Your task to perform on an android device: empty trash in the gmail app Image 0: 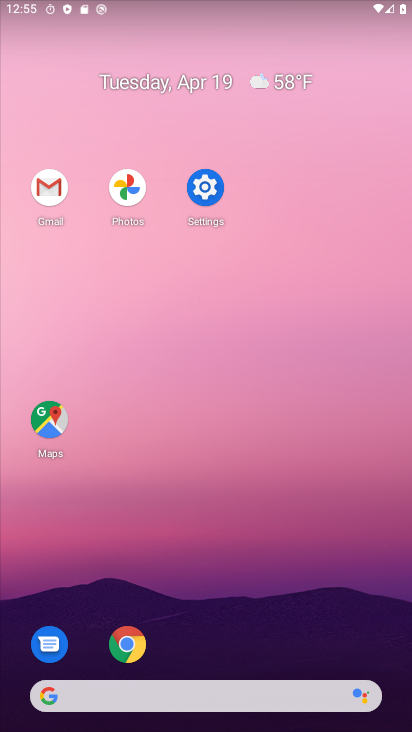
Step 0: click (52, 193)
Your task to perform on an android device: empty trash in the gmail app Image 1: 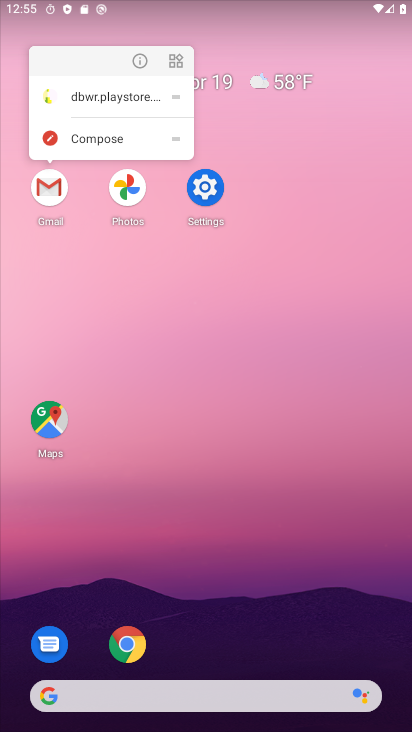
Step 1: click (52, 193)
Your task to perform on an android device: empty trash in the gmail app Image 2: 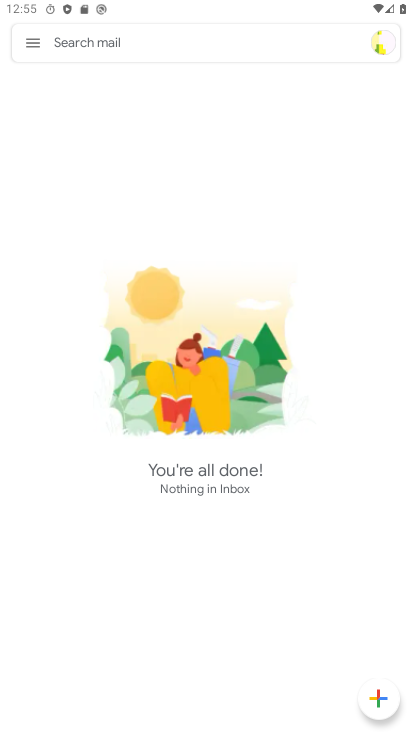
Step 2: click (46, 36)
Your task to perform on an android device: empty trash in the gmail app Image 3: 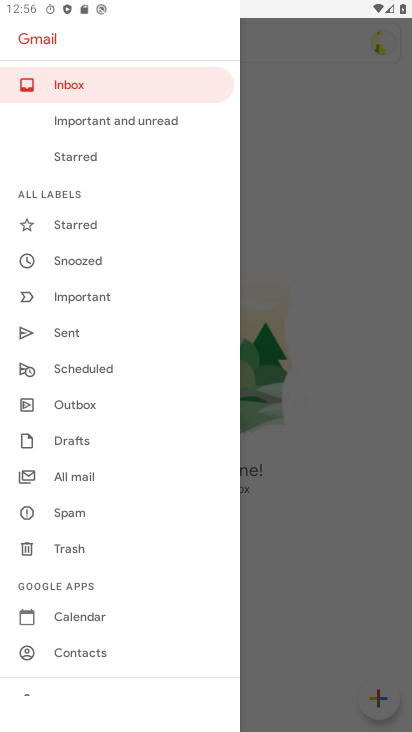
Step 3: click (100, 554)
Your task to perform on an android device: empty trash in the gmail app Image 4: 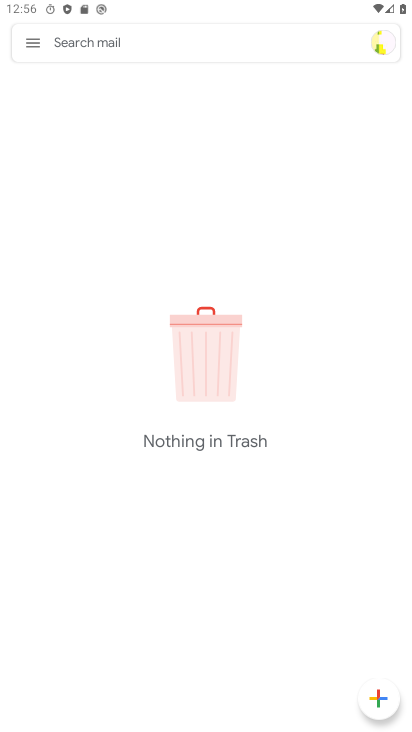
Step 4: task complete